Your task to perform on an android device: toggle data saver in the chrome app Image 0: 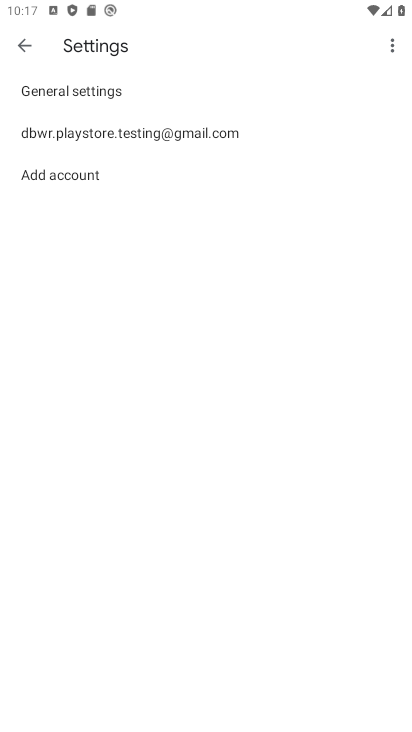
Step 0: press home button
Your task to perform on an android device: toggle data saver in the chrome app Image 1: 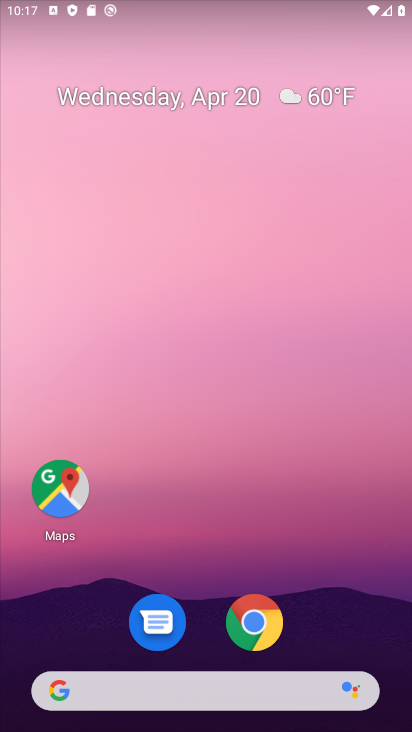
Step 1: drag from (299, 452) to (295, 0)
Your task to perform on an android device: toggle data saver in the chrome app Image 2: 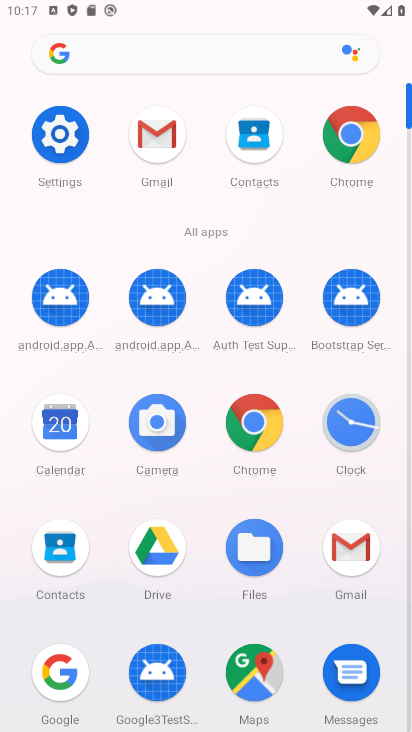
Step 2: click (362, 150)
Your task to perform on an android device: toggle data saver in the chrome app Image 3: 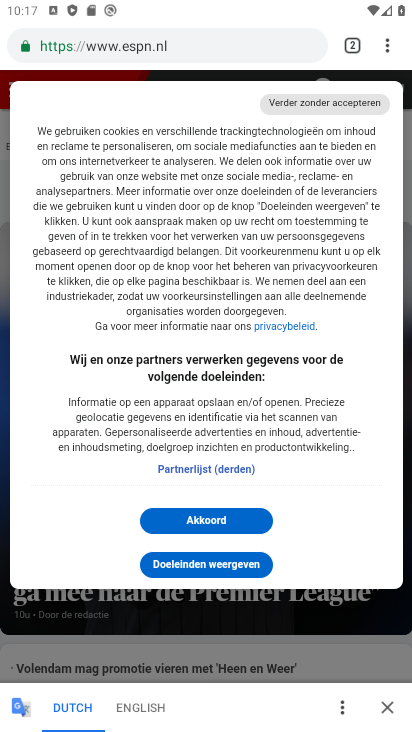
Step 3: drag from (382, 45) to (242, 544)
Your task to perform on an android device: toggle data saver in the chrome app Image 4: 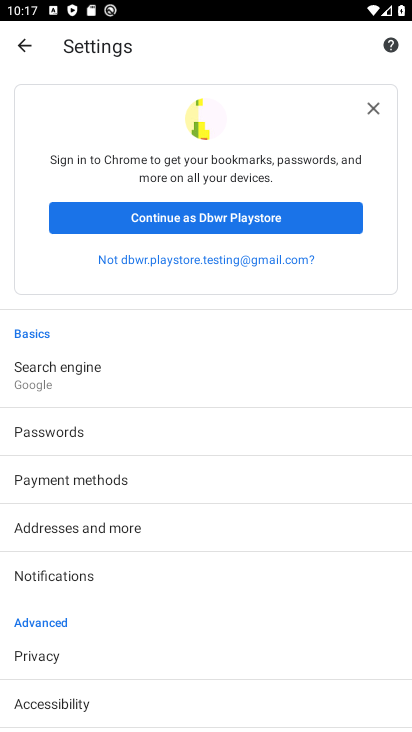
Step 4: drag from (188, 616) to (176, 221)
Your task to perform on an android device: toggle data saver in the chrome app Image 5: 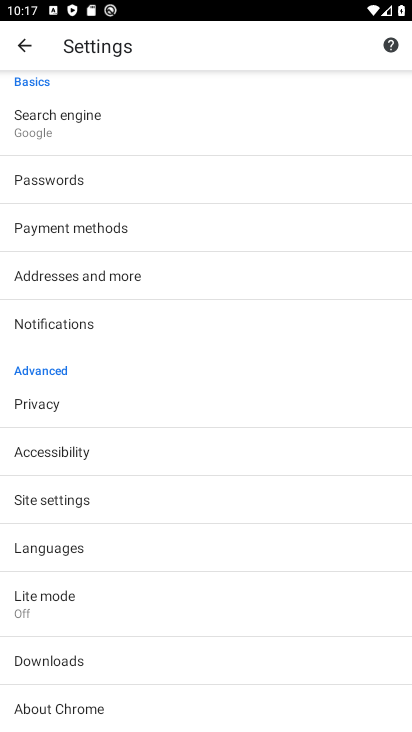
Step 5: click (108, 604)
Your task to perform on an android device: toggle data saver in the chrome app Image 6: 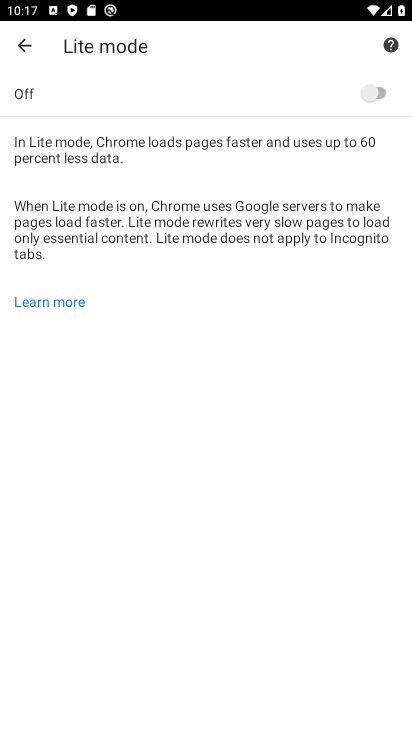
Step 6: click (379, 100)
Your task to perform on an android device: toggle data saver in the chrome app Image 7: 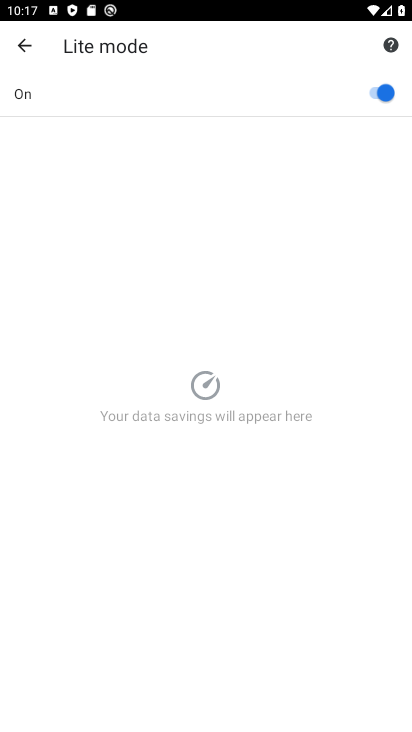
Step 7: task complete